Your task to perform on an android device: Do I have any events today? Image 0: 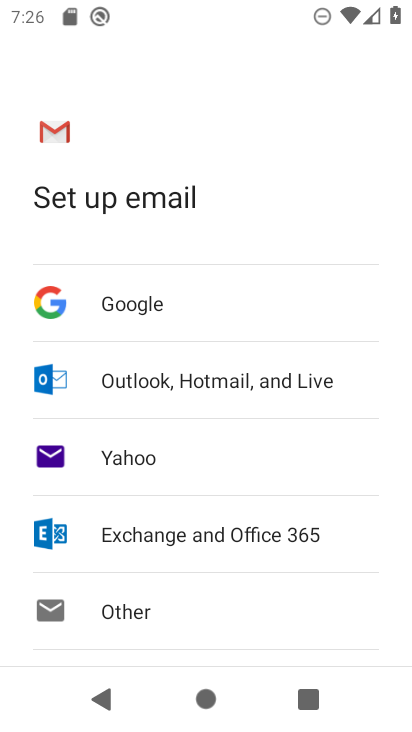
Step 0: press back button
Your task to perform on an android device: Do I have any events today? Image 1: 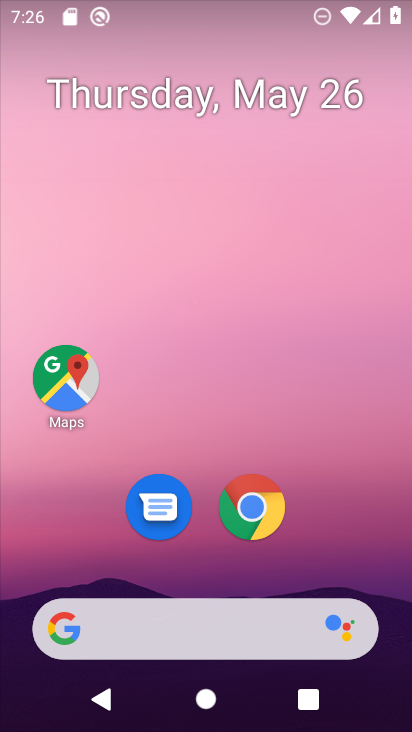
Step 1: drag from (155, 566) to (186, 94)
Your task to perform on an android device: Do I have any events today? Image 2: 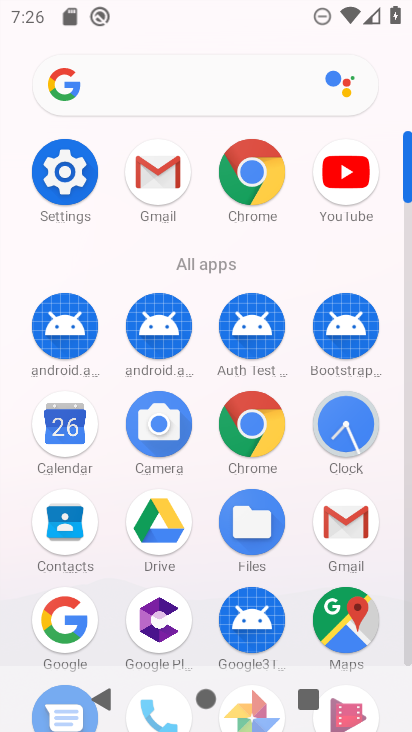
Step 2: drag from (285, 621) to (307, 481)
Your task to perform on an android device: Do I have any events today? Image 3: 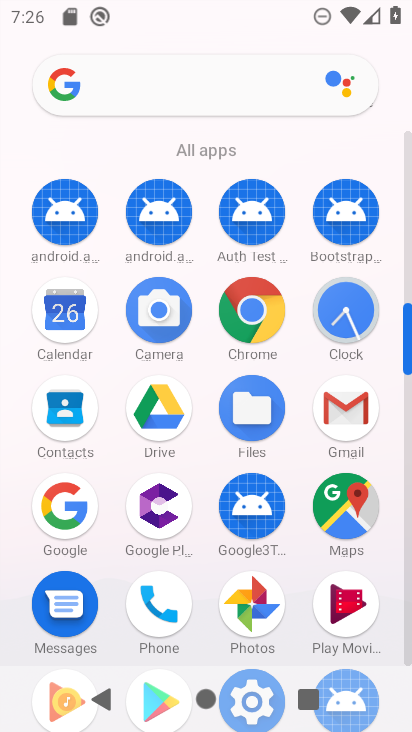
Step 3: drag from (179, 645) to (242, 454)
Your task to perform on an android device: Do I have any events today? Image 4: 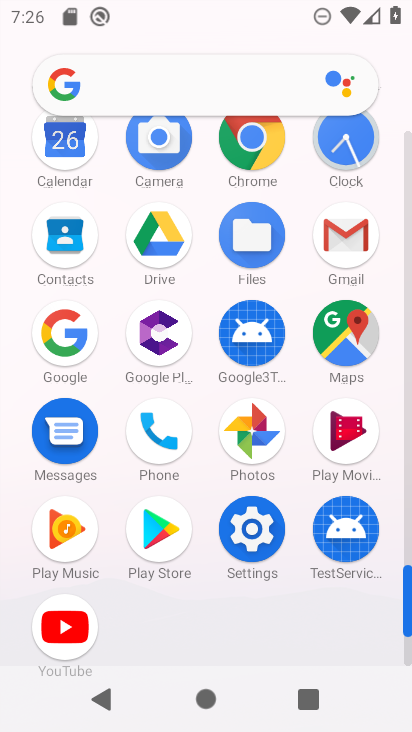
Step 4: click (54, 154)
Your task to perform on an android device: Do I have any events today? Image 5: 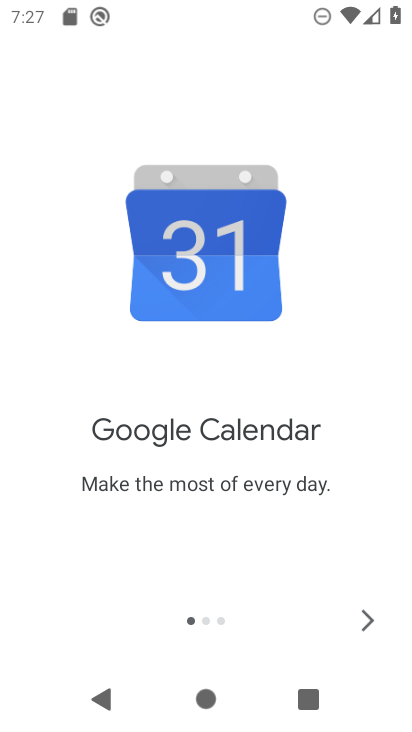
Step 5: click (361, 629)
Your task to perform on an android device: Do I have any events today? Image 6: 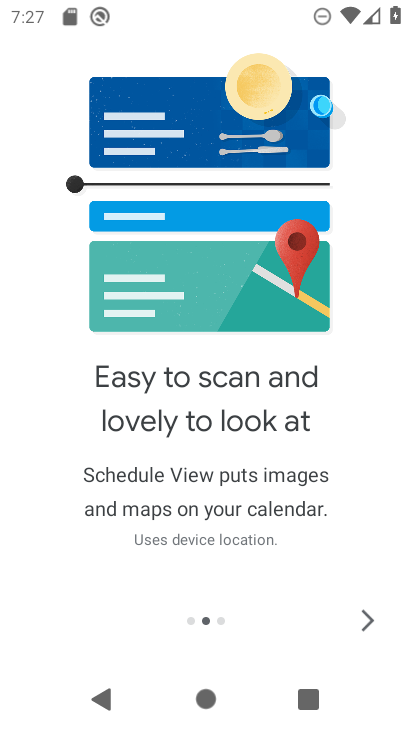
Step 6: click (361, 629)
Your task to perform on an android device: Do I have any events today? Image 7: 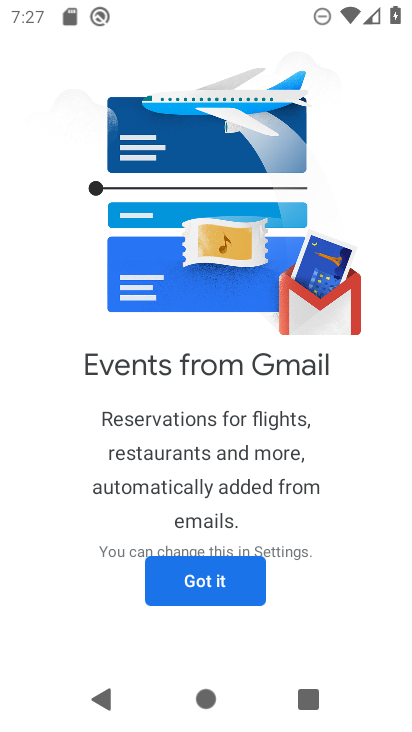
Step 7: click (199, 592)
Your task to perform on an android device: Do I have any events today? Image 8: 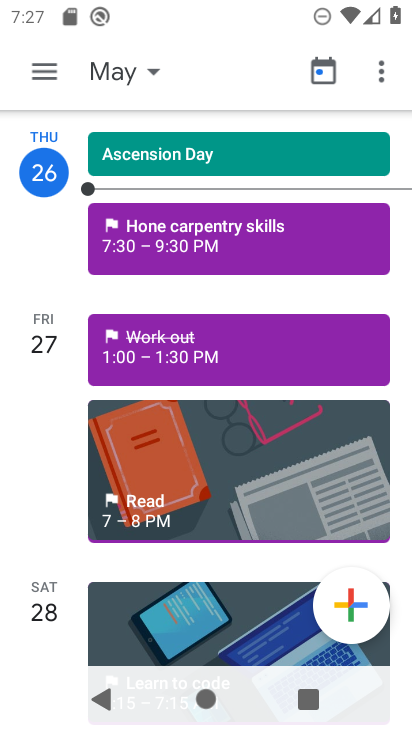
Step 8: task complete